Your task to perform on an android device: move an email to a new category in the gmail app Image 0: 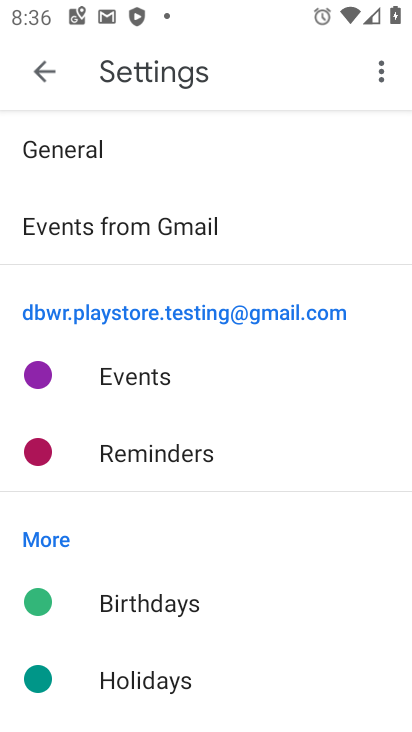
Step 0: press home button
Your task to perform on an android device: move an email to a new category in the gmail app Image 1: 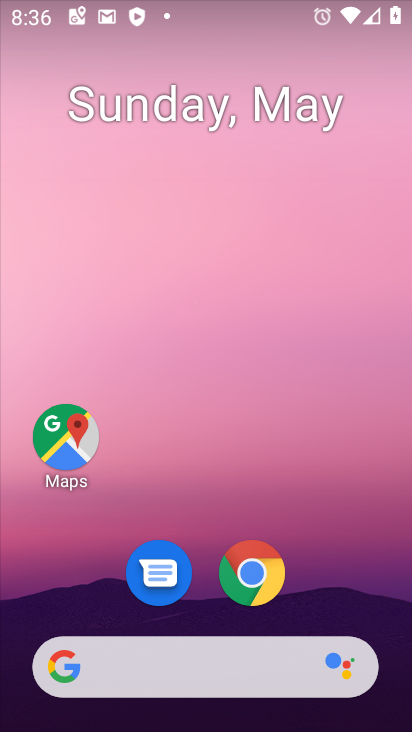
Step 1: drag from (165, 233) to (167, 0)
Your task to perform on an android device: move an email to a new category in the gmail app Image 2: 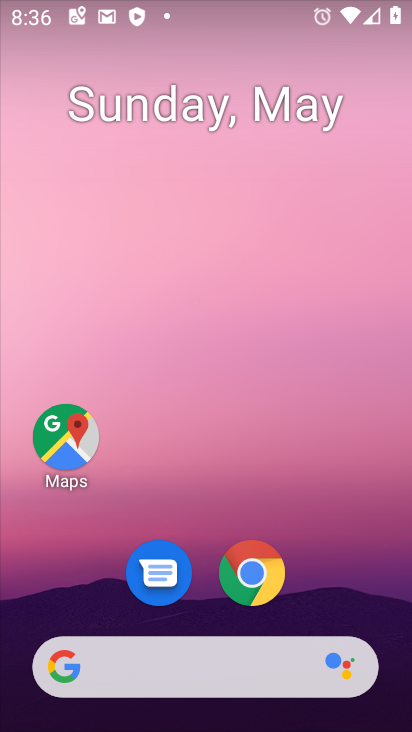
Step 2: drag from (228, 479) to (238, 9)
Your task to perform on an android device: move an email to a new category in the gmail app Image 3: 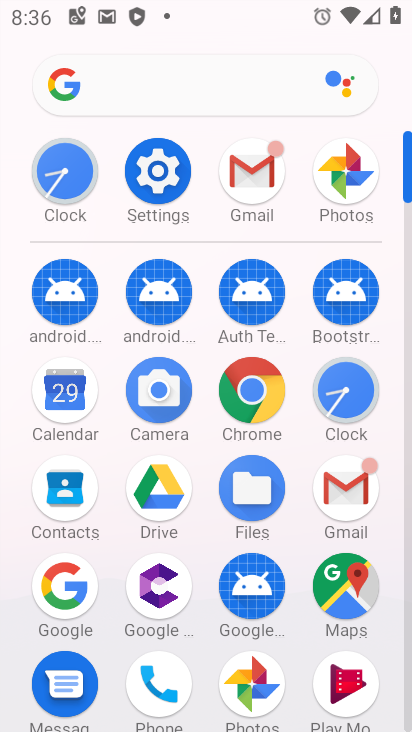
Step 3: click (261, 179)
Your task to perform on an android device: move an email to a new category in the gmail app Image 4: 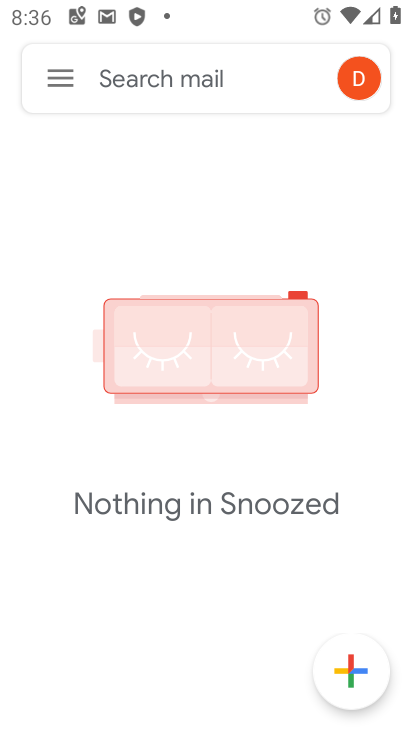
Step 4: click (60, 77)
Your task to perform on an android device: move an email to a new category in the gmail app Image 5: 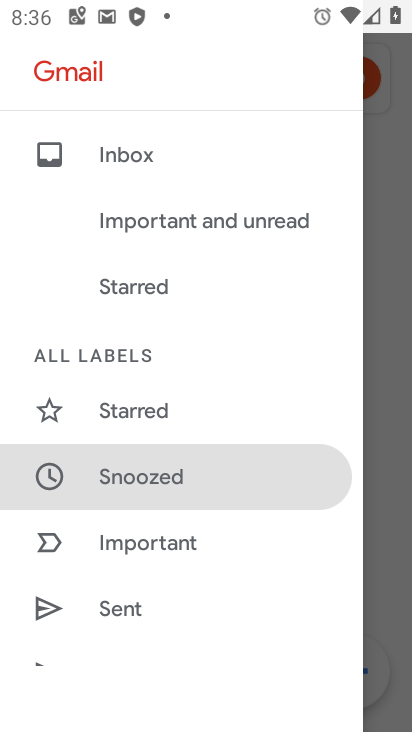
Step 5: drag from (229, 252) to (213, 590)
Your task to perform on an android device: move an email to a new category in the gmail app Image 6: 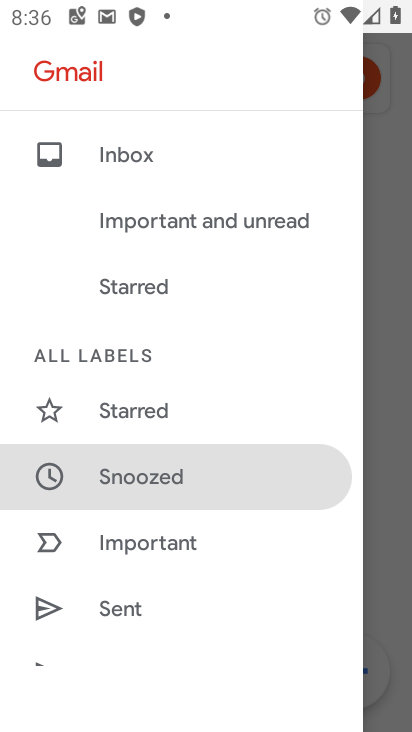
Step 6: drag from (169, 567) to (203, 43)
Your task to perform on an android device: move an email to a new category in the gmail app Image 7: 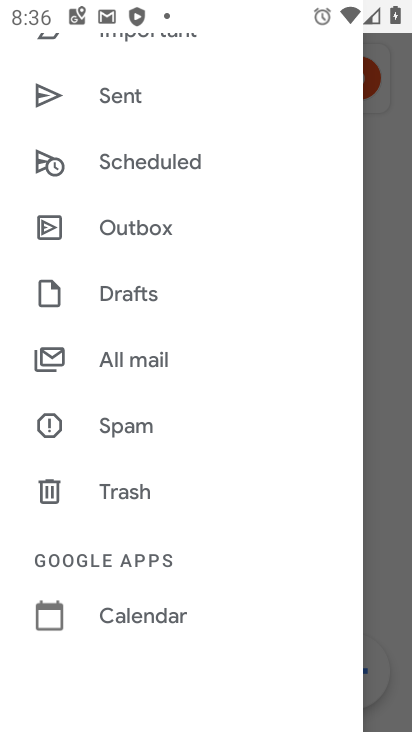
Step 7: click (154, 352)
Your task to perform on an android device: move an email to a new category in the gmail app Image 8: 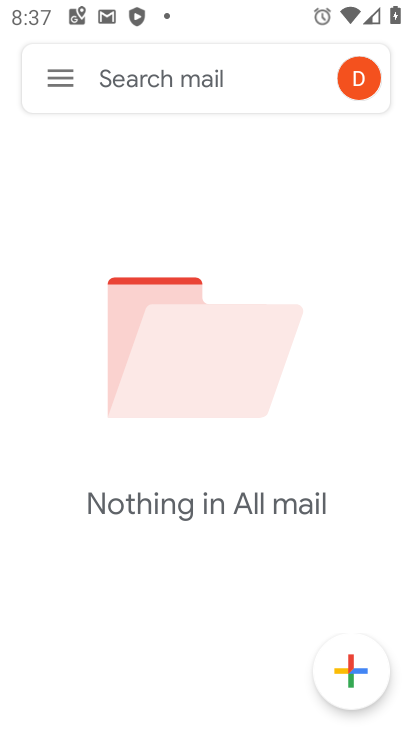
Step 8: task complete